Your task to perform on an android device: Open network settings Image 0: 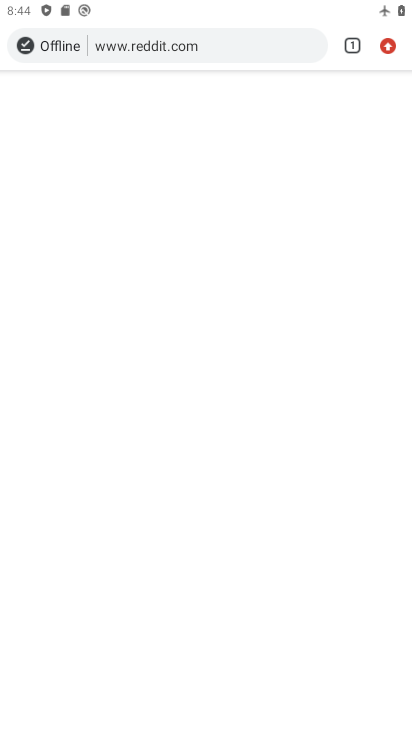
Step 0: press home button
Your task to perform on an android device: Open network settings Image 1: 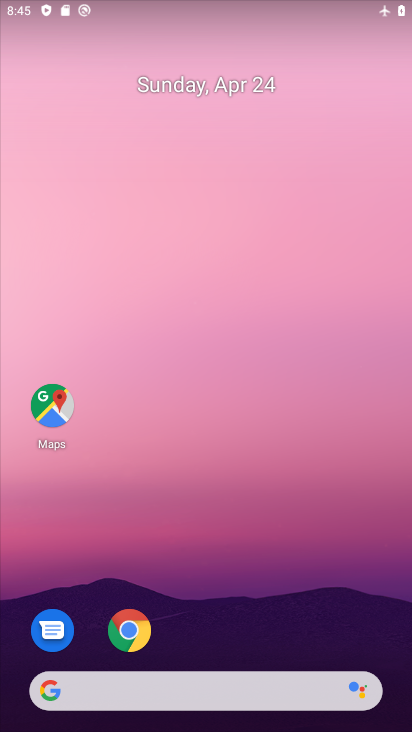
Step 1: drag from (211, 646) to (223, 86)
Your task to perform on an android device: Open network settings Image 2: 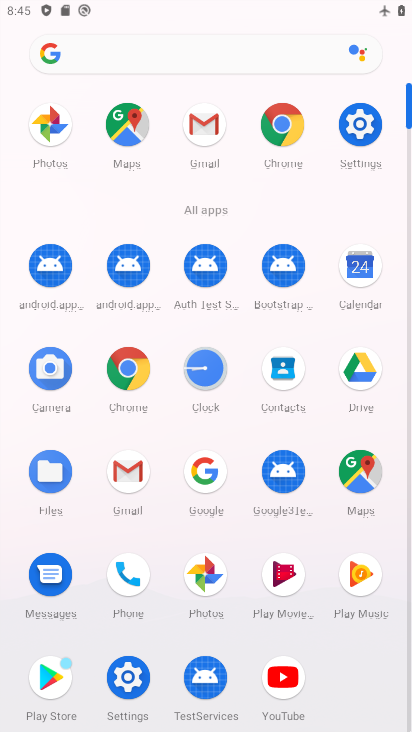
Step 2: click (352, 114)
Your task to perform on an android device: Open network settings Image 3: 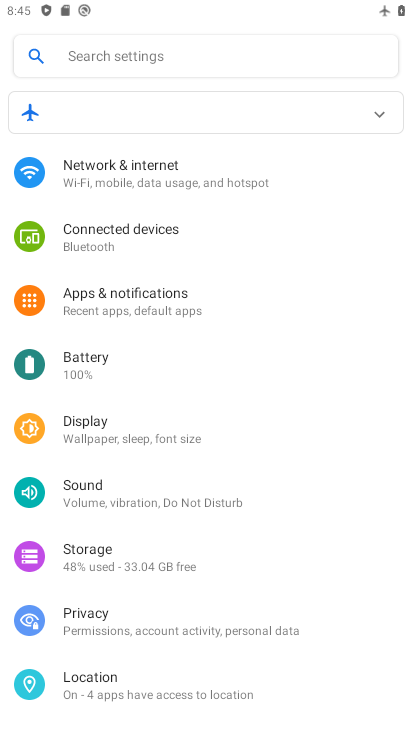
Step 3: click (110, 186)
Your task to perform on an android device: Open network settings Image 4: 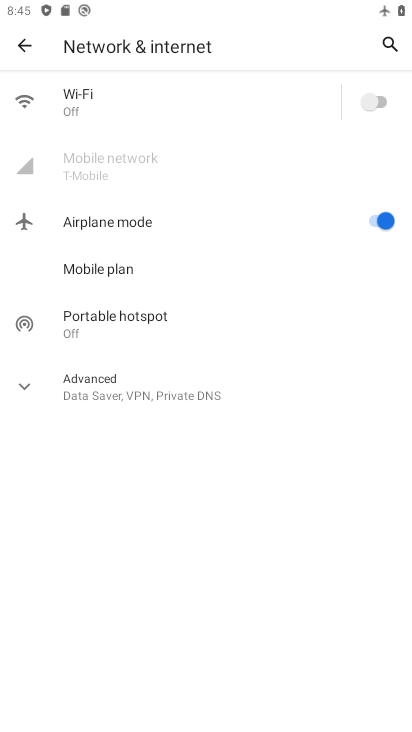
Step 4: task complete